Your task to perform on an android device: check google app version Image 0: 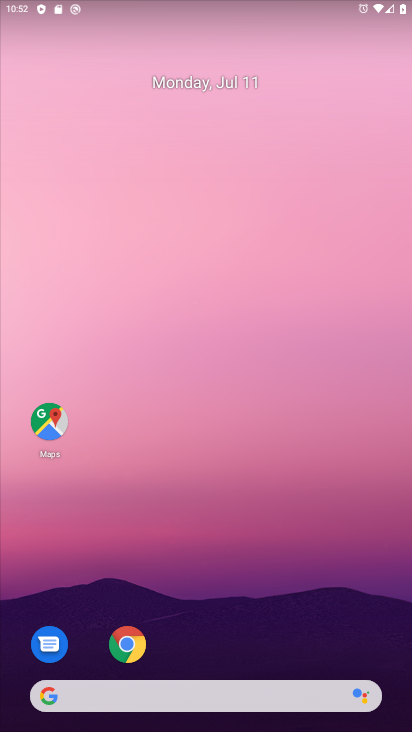
Step 0: press home button
Your task to perform on an android device: check google app version Image 1: 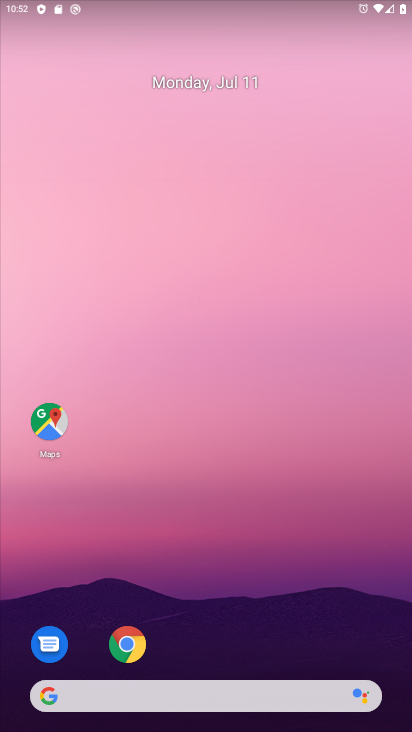
Step 1: drag from (309, 566) to (261, 7)
Your task to perform on an android device: check google app version Image 2: 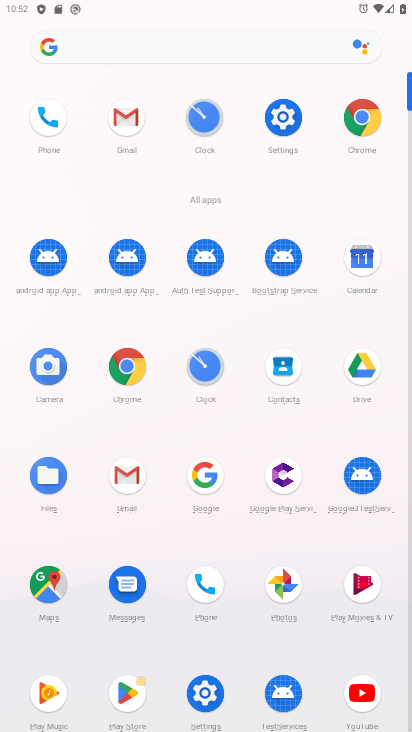
Step 2: click (202, 477)
Your task to perform on an android device: check google app version Image 3: 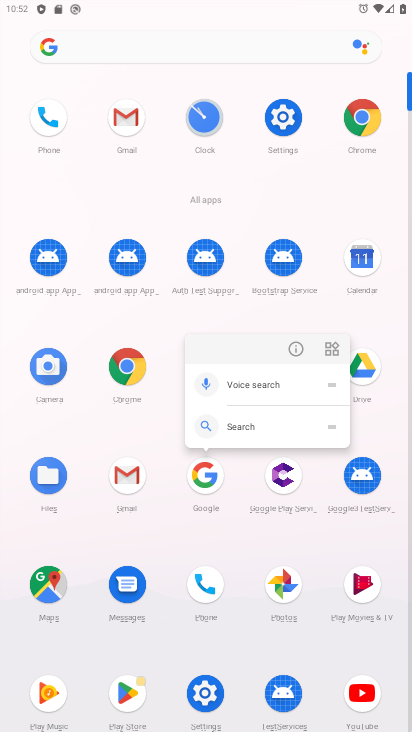
Step 3: click (302, 350)
Your task to perform on an android device: check google app version Image 4: 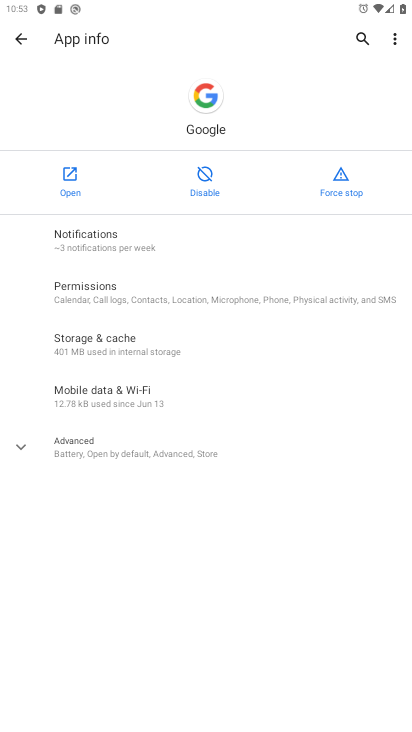
Step 4: click (102, 453)
Your task to perform on an android device: check google app version Image 5: 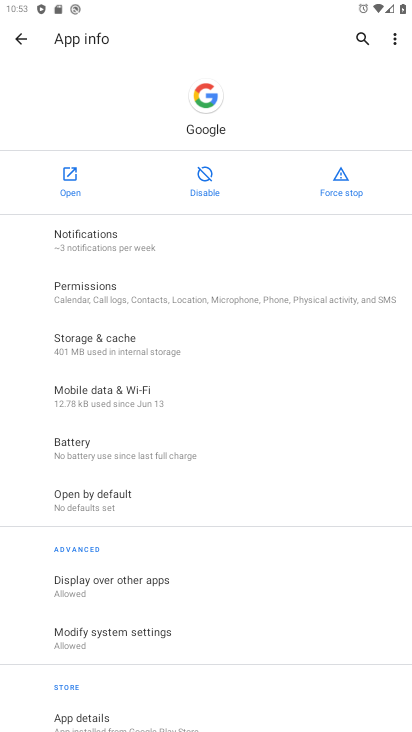
Step 5: task complete